Your task to perform on an android device: Open the stopwatch Image 0: 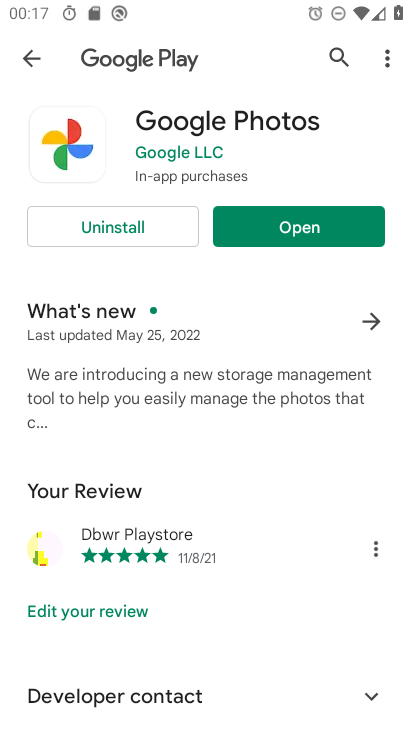
Step 0: press home button
Your task to perform on an android device: Open the stopwatch Image 1: 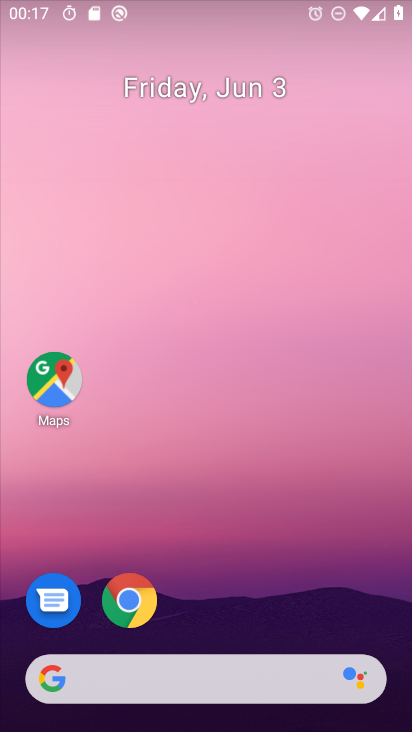
Step 1: drag from (200, 612) to (230, 41)
Your task to perform on an android device: Open the stopwatch Image 2: 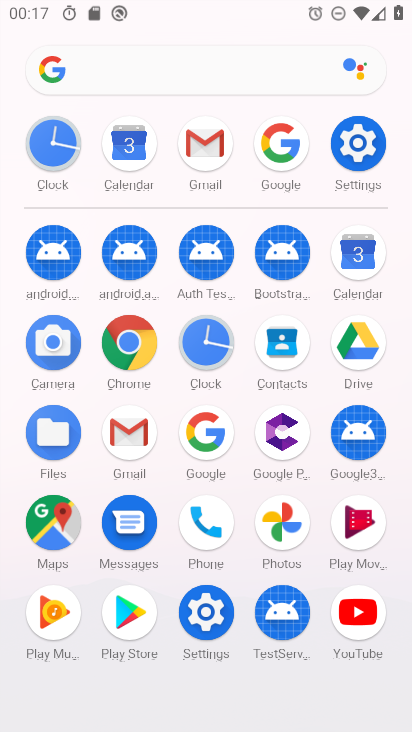
Step 2: click (59, 151)
Your task to perform on an android device: Open the stopwatch Image 3: 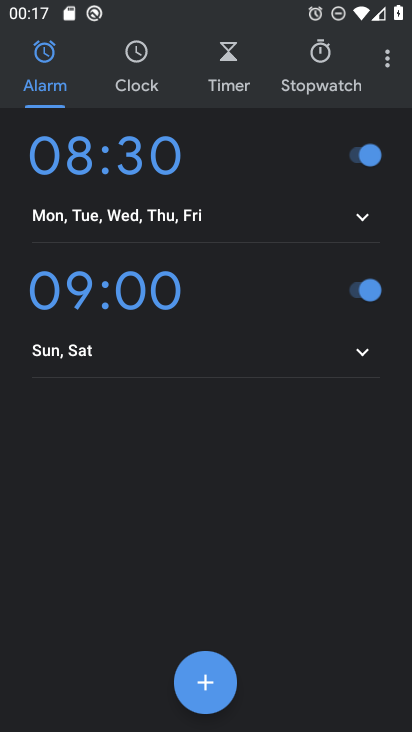
Step 3: click (338, 74)
Your task to perform on an android device: Open the stopwatch Image 4: 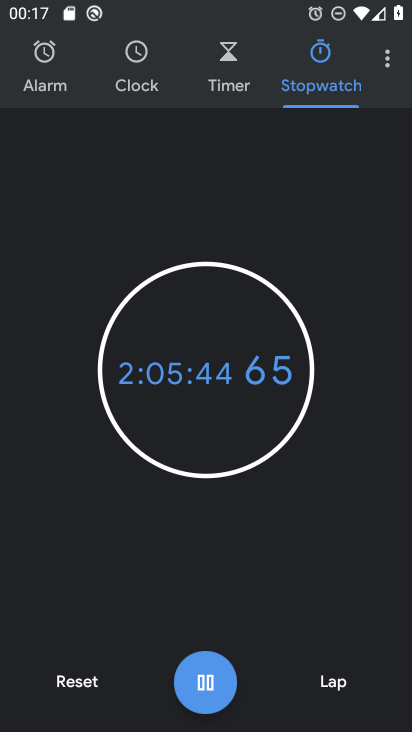
Step 4: task complete